Your task to perform on an android device: How much does the TCL TV cost? Image 0: 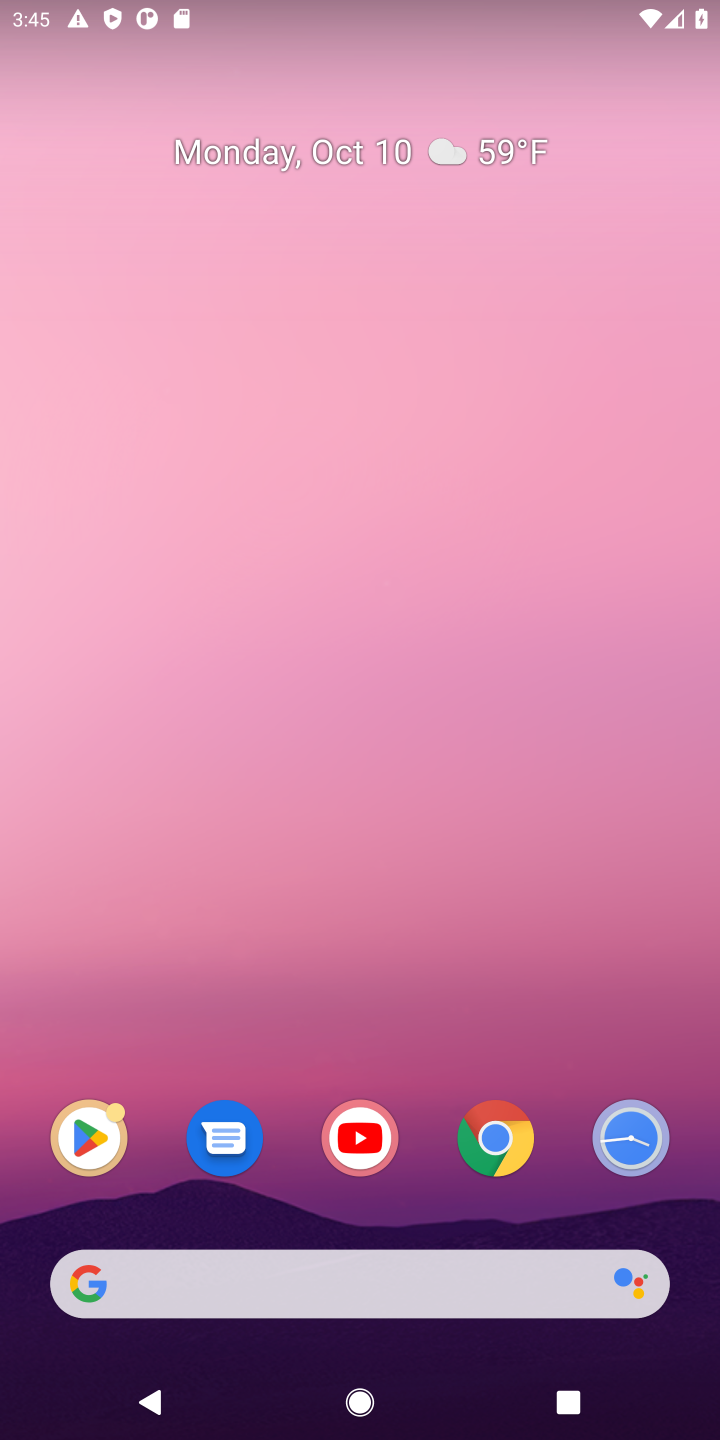
Step 0: drag from (527, 1204) to (674, 14)
Your task to perform on an android device: How much does the TCL TV cost? Image 1: 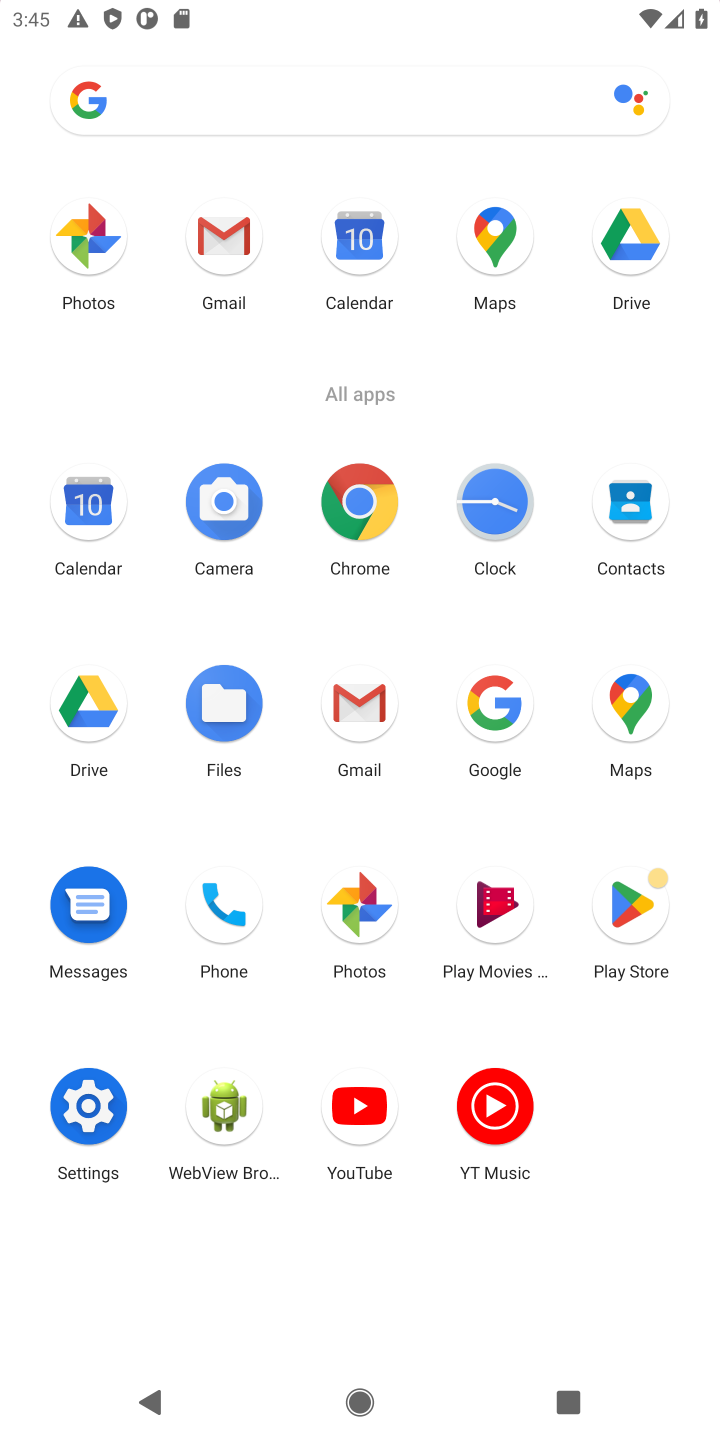
Step 1: click (518, 759)
Your task to perform on an android device: How much does the TCL TV cost? Image 2: 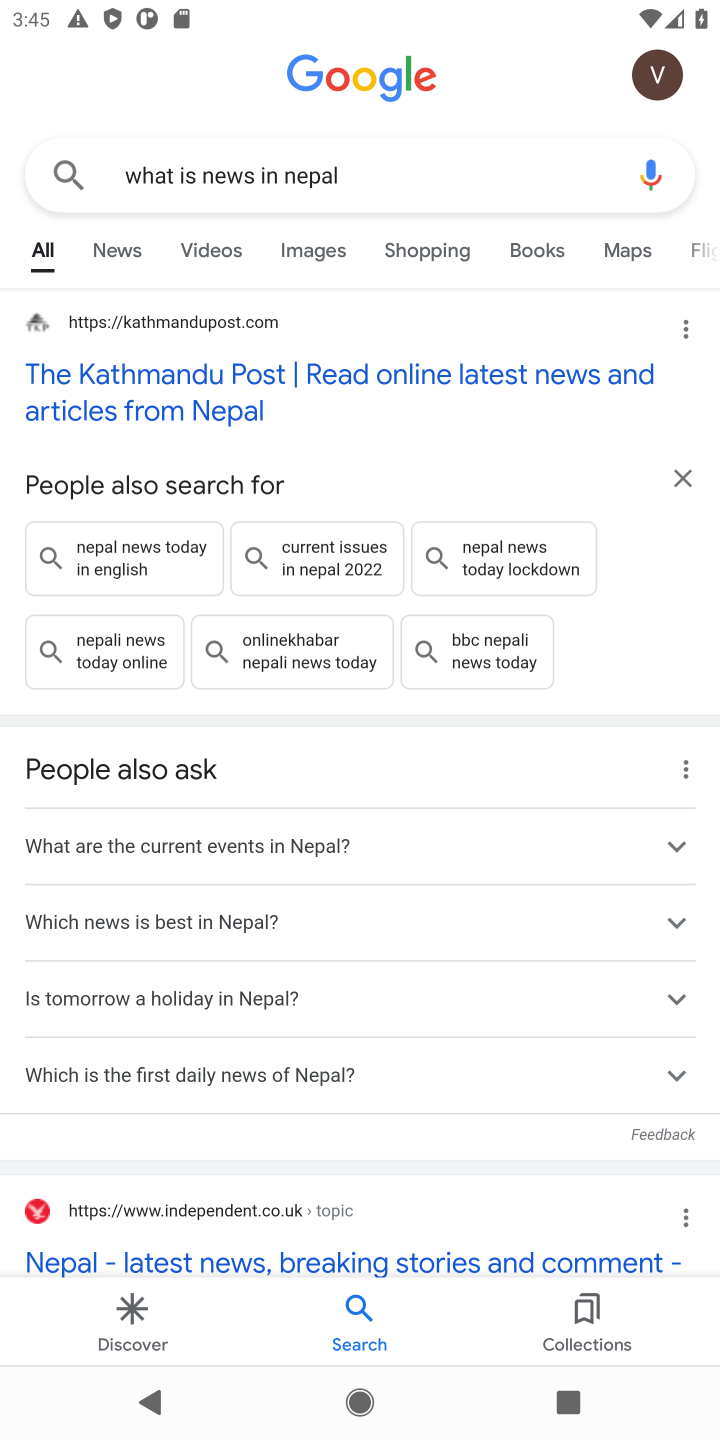
Step 2: click (403, 181)
Your task to perform on an android device: How much does the TCL TV cost? Image 3: 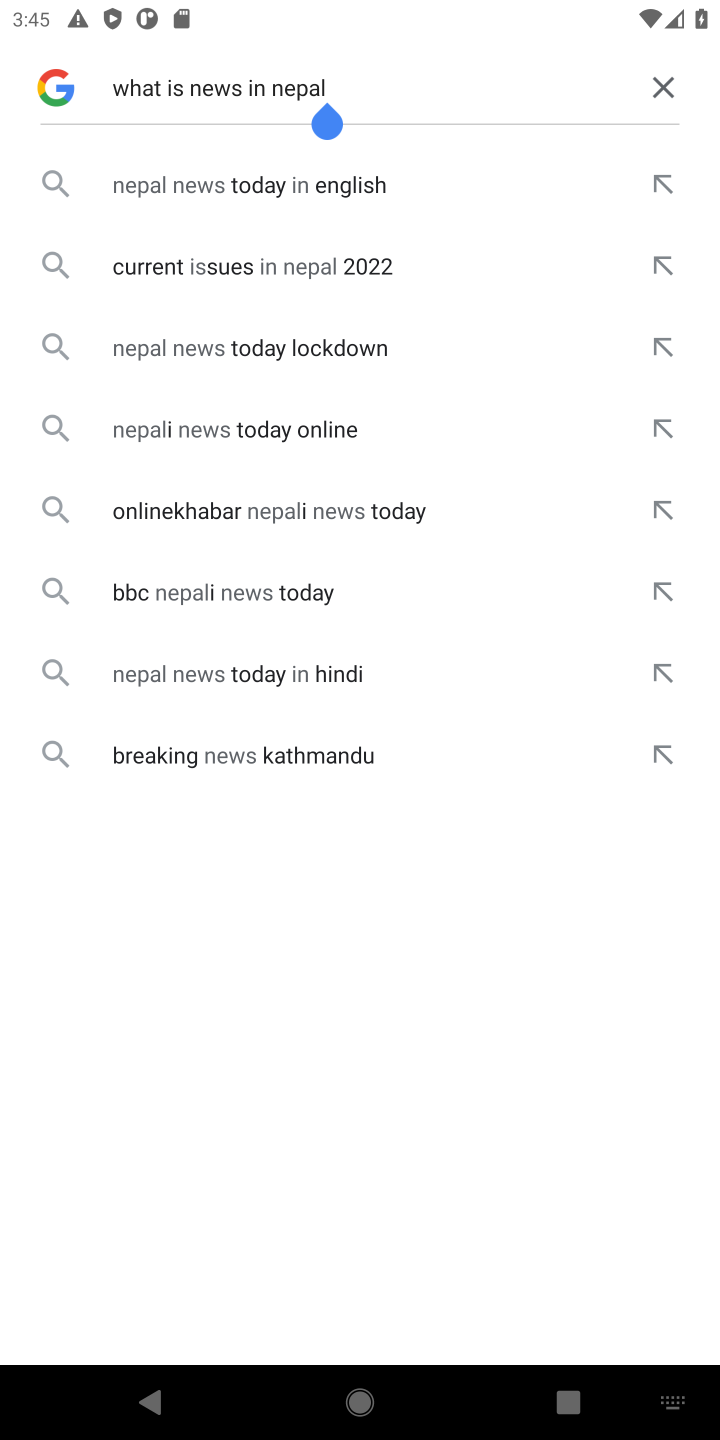
Step 3: click (657, 93)
Your task to perform on an android device: How much does the TCL TV cost? Image 4: 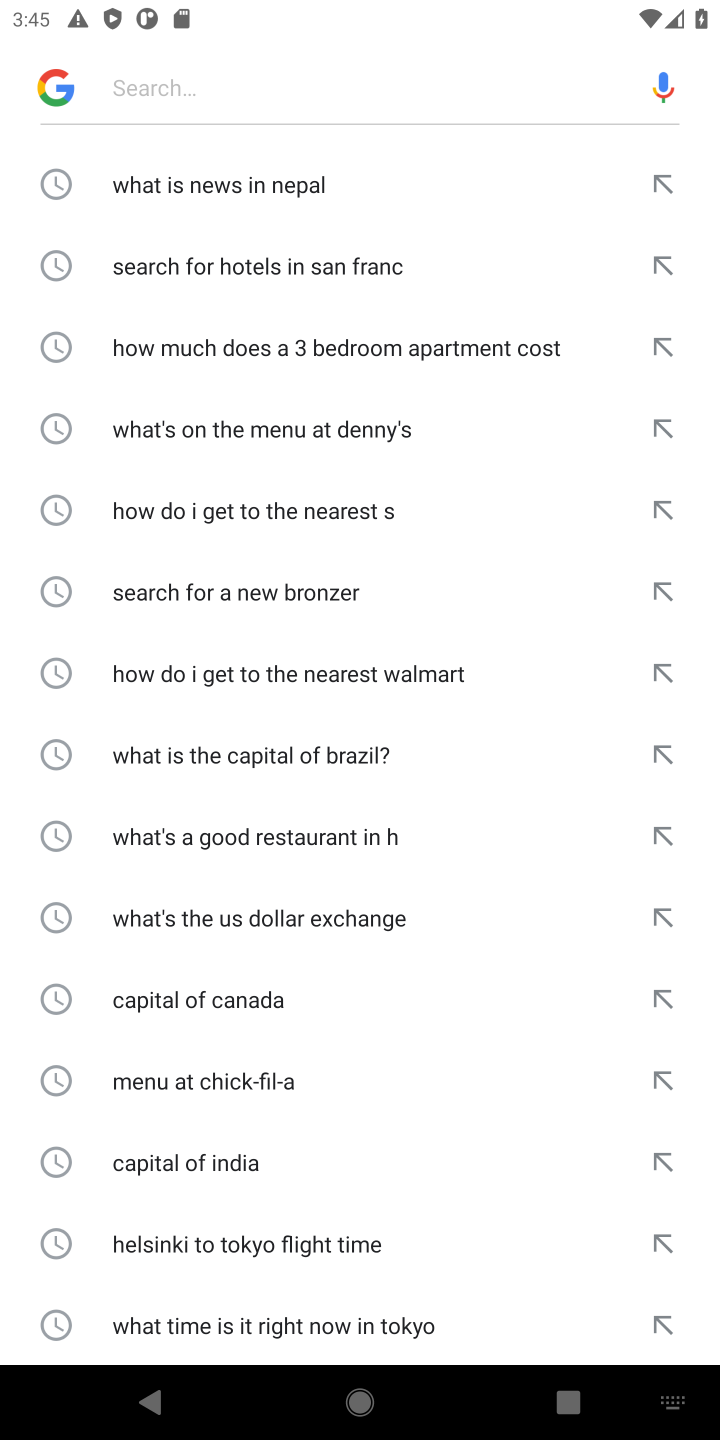
Step 4: type "How much does the TCL TV cost?"
Your task to perform on an android device: How much does the TCL TV cost? Image 5: 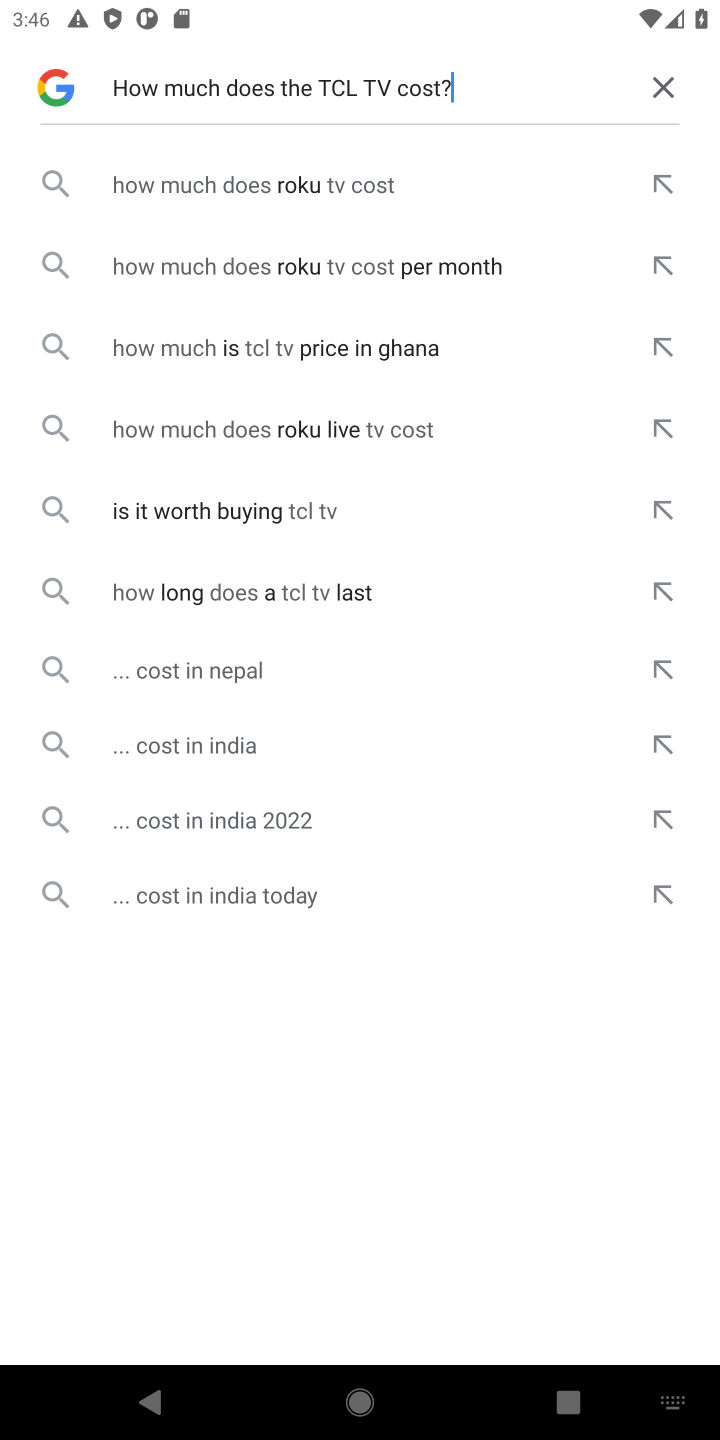
Step 5: click (320, 584)
Your task to perform on an android device: How much does the TCL TV cost? Image 6: 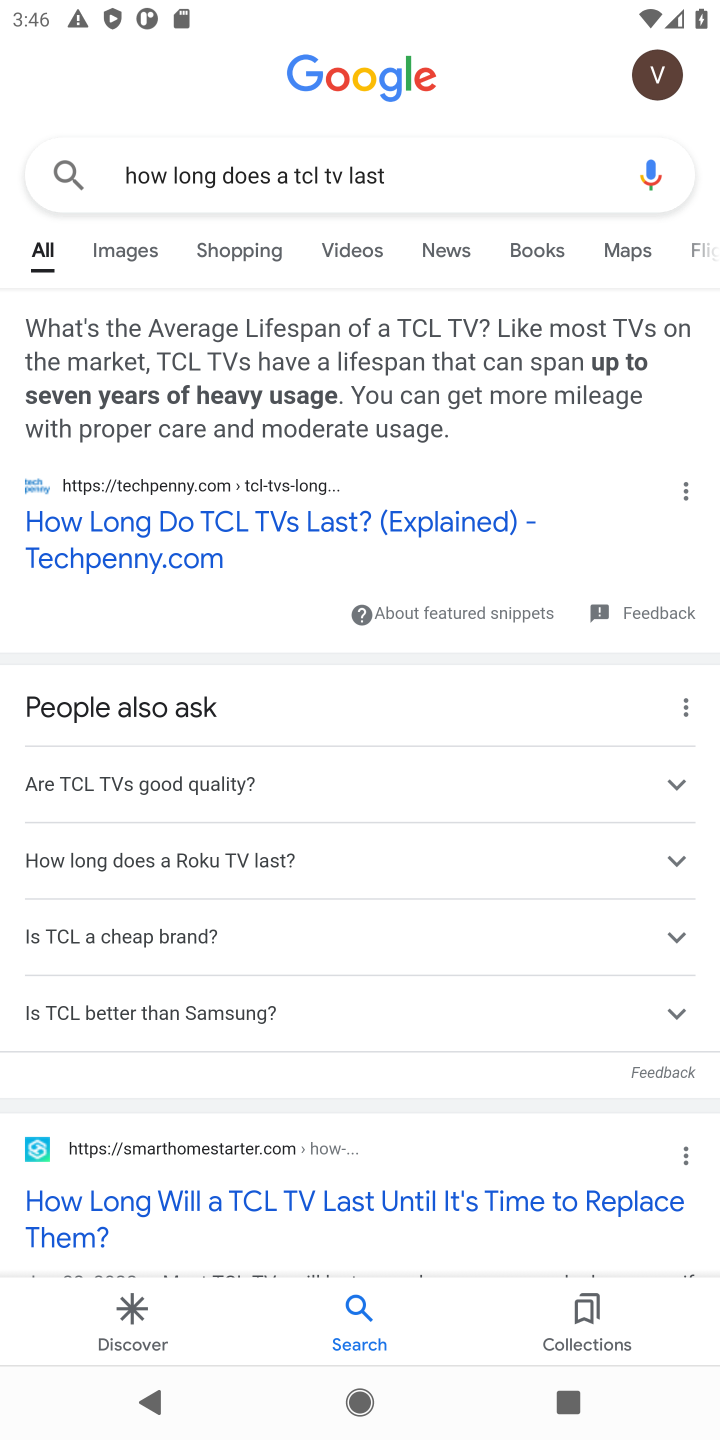
Step 6: task complete